Your task to perform on an android device: change keyboard looks Image 0: 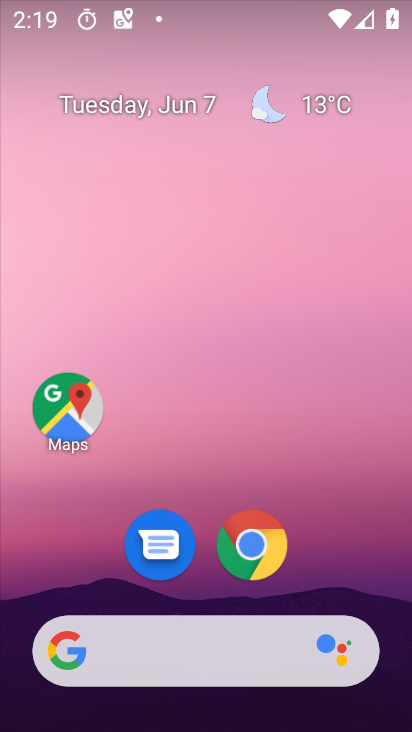
Step 0: drag from (345, 386) to (214, 13)
Your task to perform on an android device: change keyboard looks Image 1: 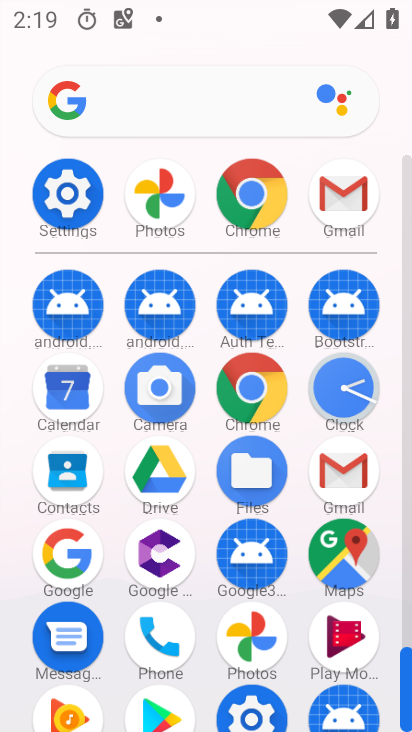
Step 1: click (74, 191)
Your task to perform on an android device: change keyboard looks Image 2: 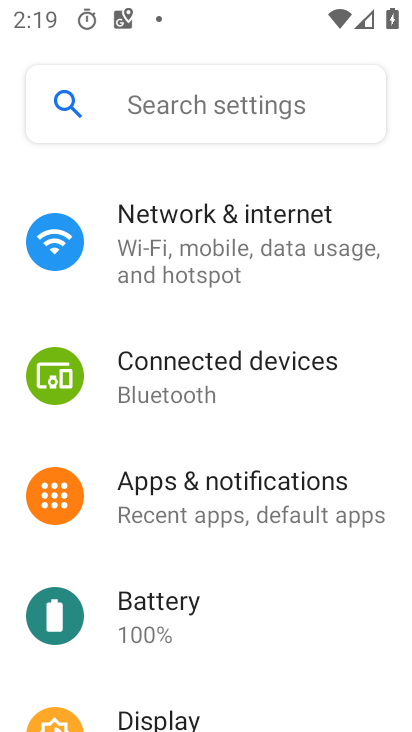
Step 2: drag from (249, 565) to (208, 42)
Your task to perform on an android device: change keyboard looks Image 3: 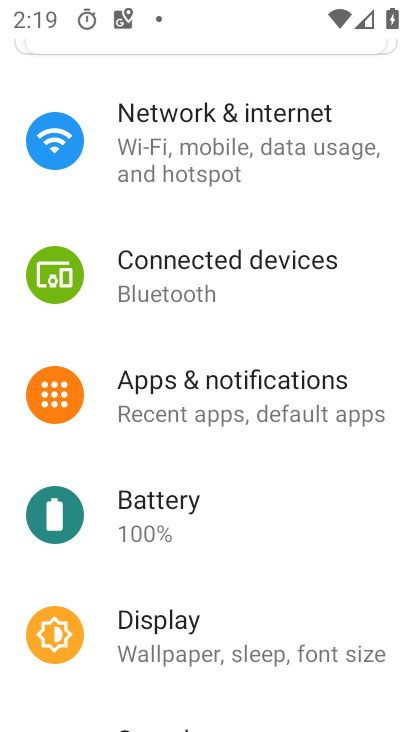
Step 3: drag from (237, 648) to (206, 10)
Your task to perform on an android device: change keyboard looks Image 4: 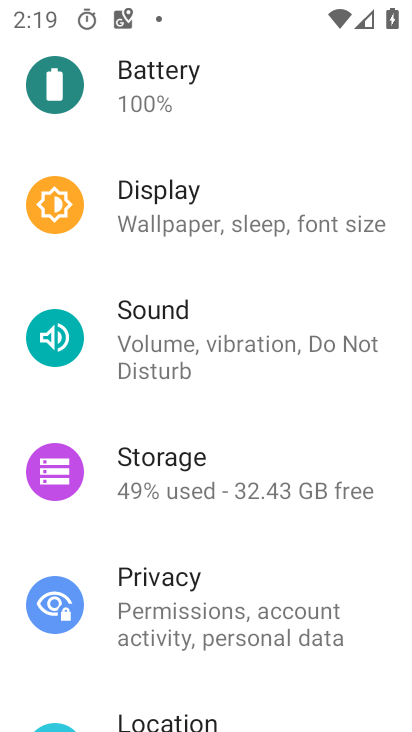
Step 4: drag from (204, 602) to (221, 1)
Your task to perform on an android device: change keyboard looks Image 5: 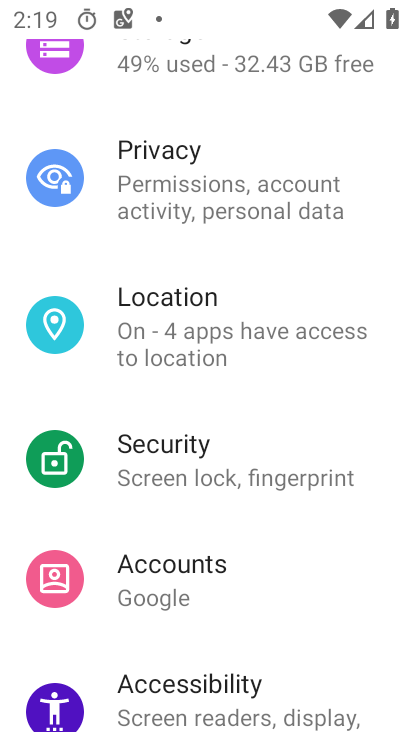
Step 5: drag from (262, 608) to (246, 25)
Your task to perform on an android device: change keyboard looks Image 6: 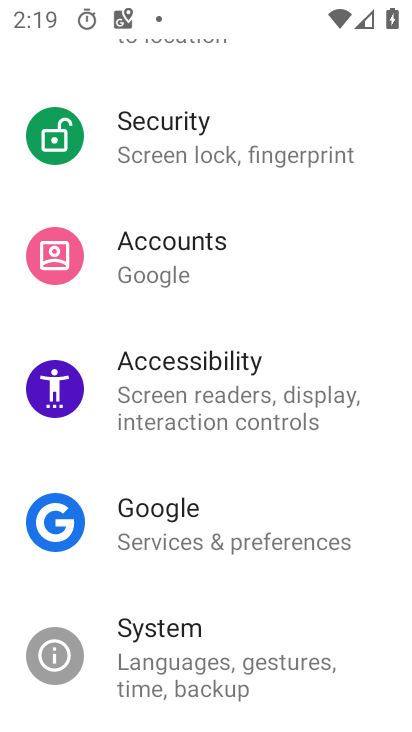
Step 6: click (202, 632)
Your task to perform on an android device: change keyboard looks Image 7: 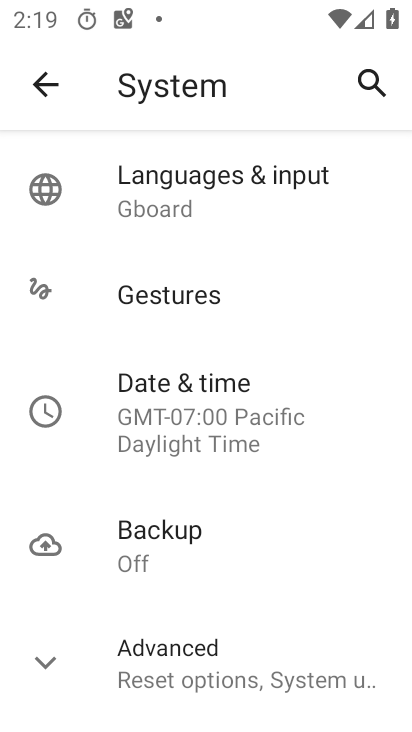
Step 7: click (167, 197)
Your task to perform on an android device: change keyboard looks Image 8: 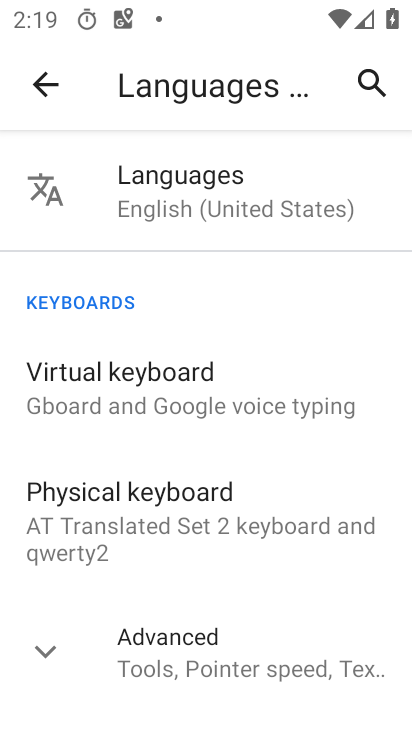
Step 8: click (152, 367)
Your task to perform on an android device: change keyboard looks Image 9: 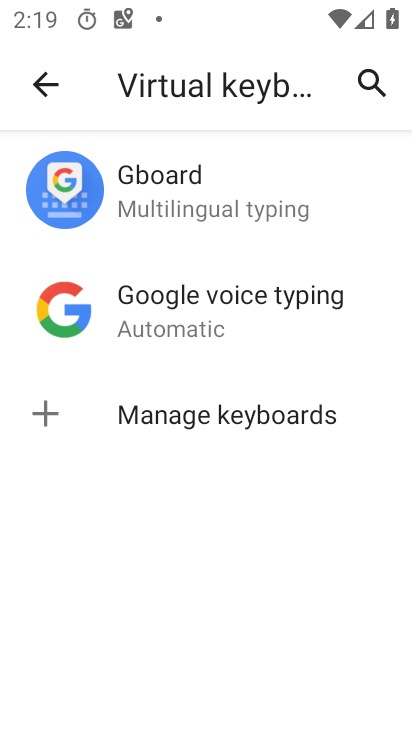
Step 9: click (165, 169)
Your task to perform on an android device: change keyboard looks Image 10: 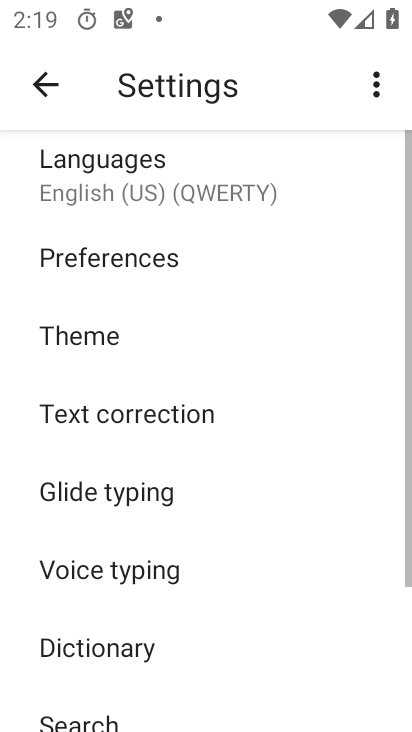
Step 10: click (144, 353)
Your task to perform on an android device: change keyboard looks Image 11: 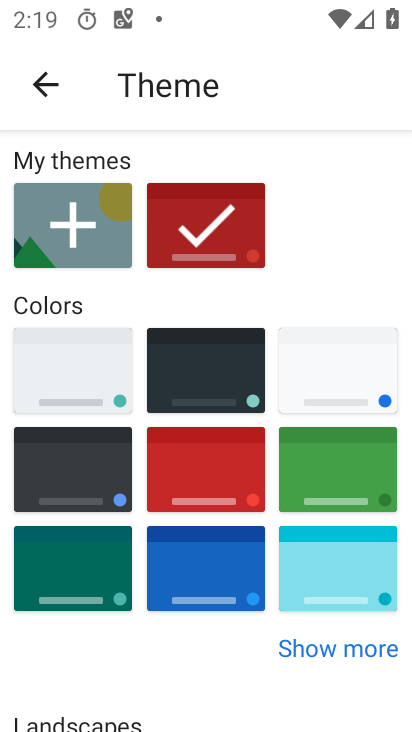
Step 11: click (192, 539)
Your task to perform on an android device: change keyboard looks Image 12: 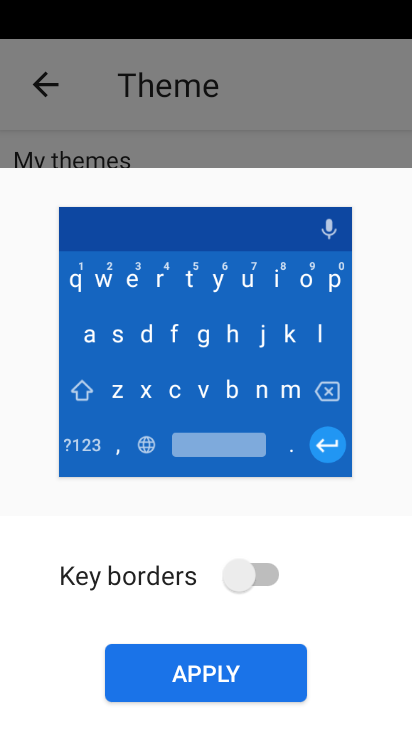
Step 12: click (194, 660)
Your task to perform on an android device: change keyboard looks Image 13: 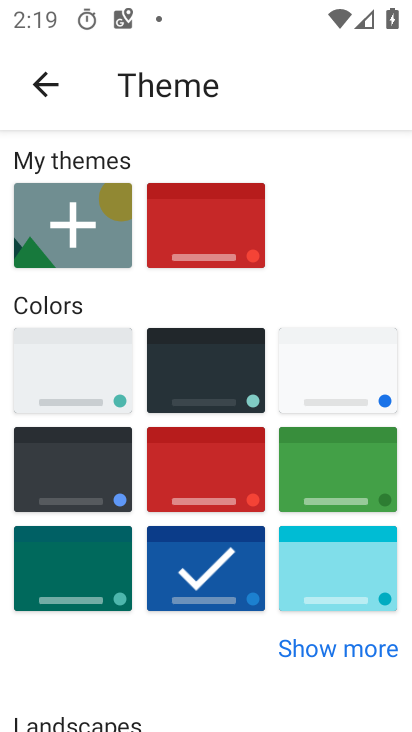
Step 13: task complete